Your task to perform on an android device: open device folders in google photos Image 0: 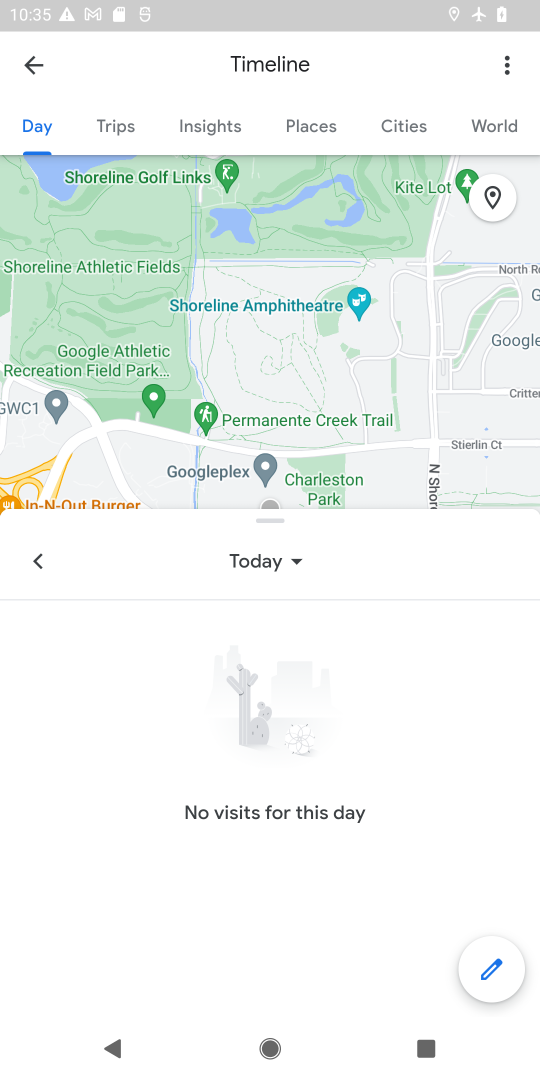
Step 0: press home button
Your task to perform on an android device: open device folders in google photos Image 1: 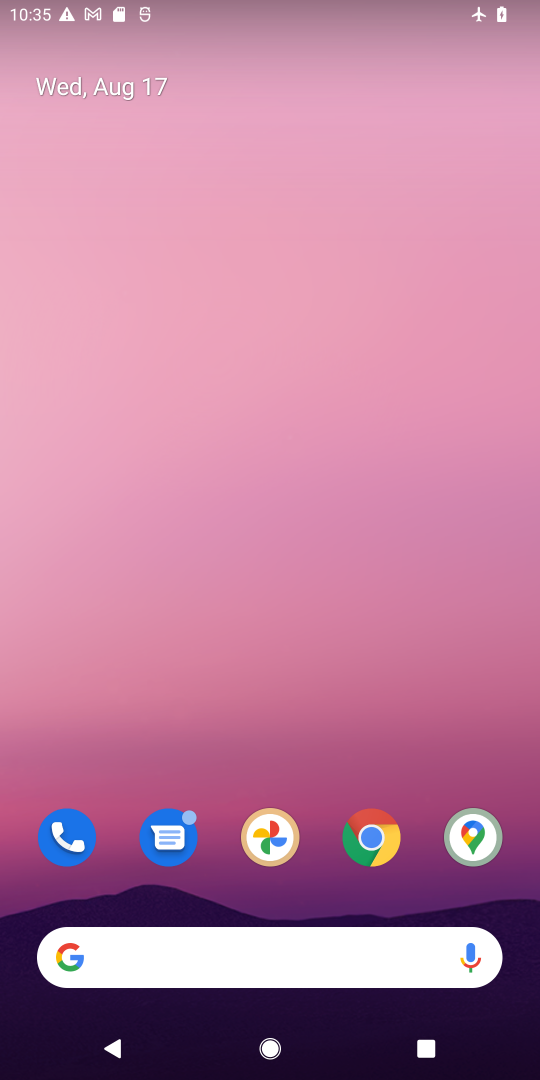
Step 1: drag from (270, 986) to (426, 255)
Your task to perform on an android device: open device folders in google photos Image 2: 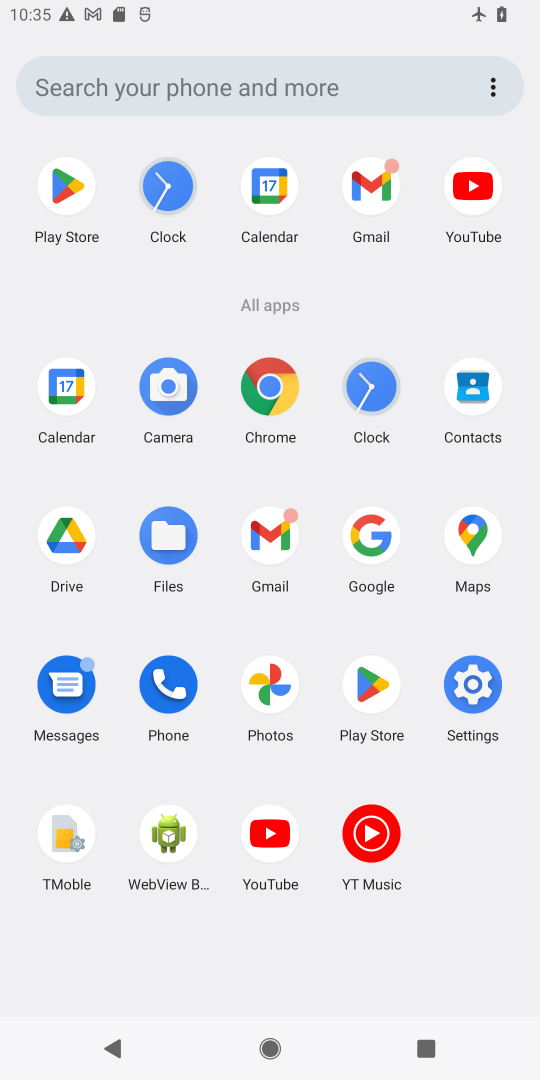
Step 2: click (269, 684)
Your task to perform on an android device: open device folders in google photos Image 3: 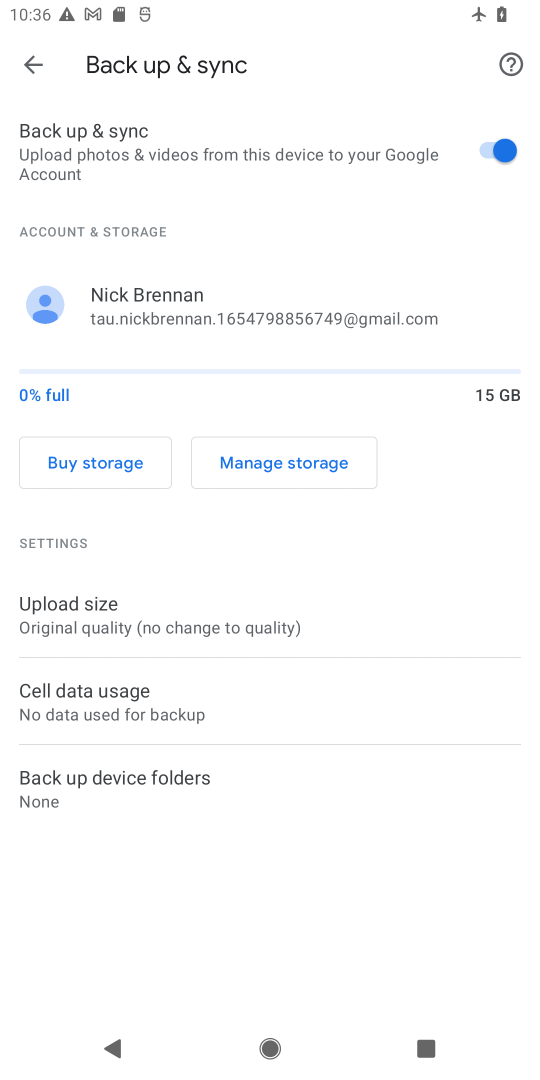
Step 3: click (198, 781)
Your task to perform on an android device: open device folders in google photos Image 4: 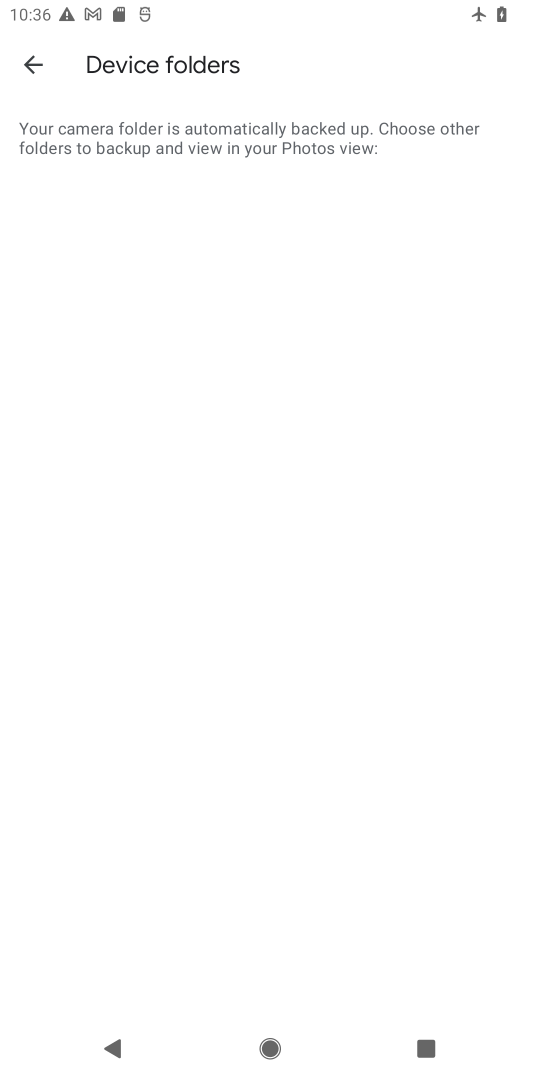
Step 4: click (216, 155)
Your task to perform on an android device: open device folders in google photos Image 5: 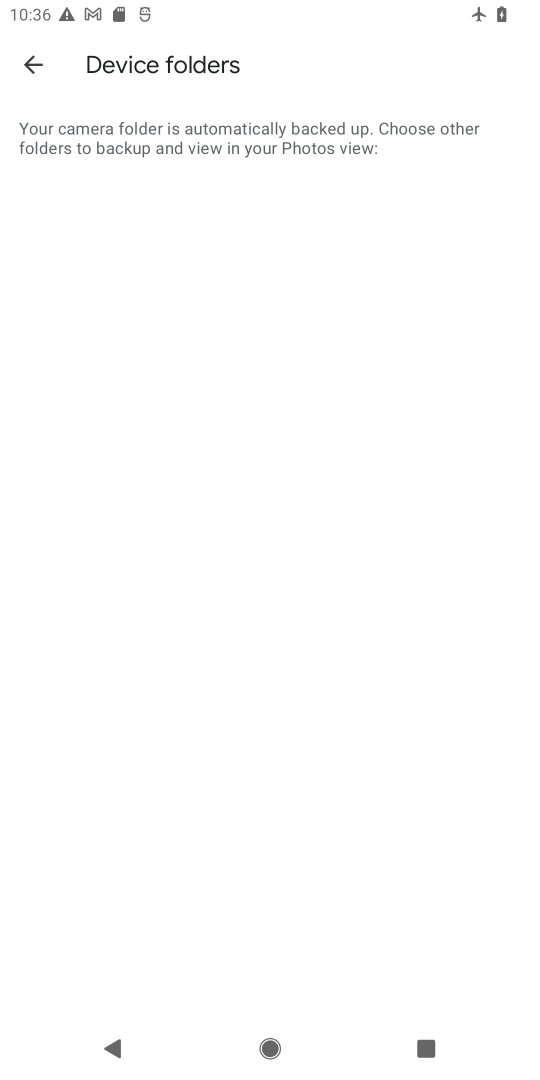
Step 5: click (38, 72)
Your task to perform on an android device: open device folders in google photos Image 6: 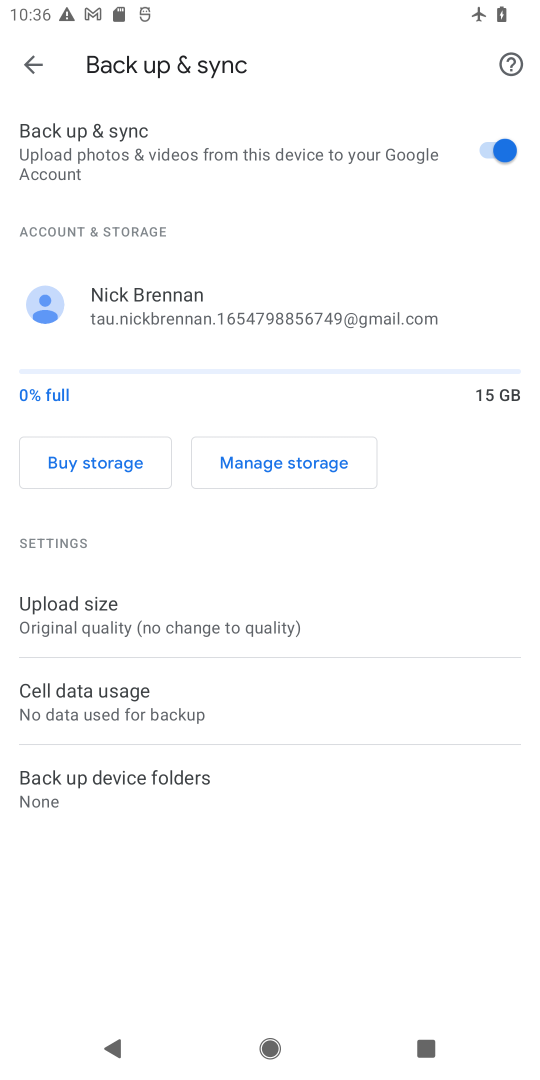
Step 6: task complete